Your task to perform on an android device: Search for a storage ottoman in the living room Image 0: 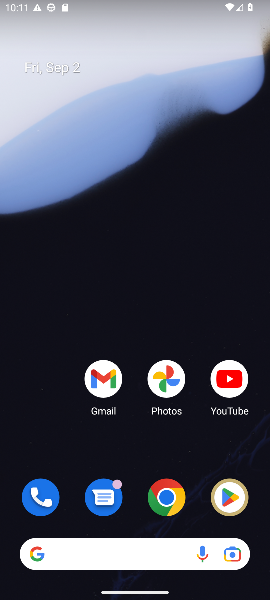
Step 0: click (178, 507)
Your task to perform on an android device: Search for a storage ottoman in the living room Image 1: 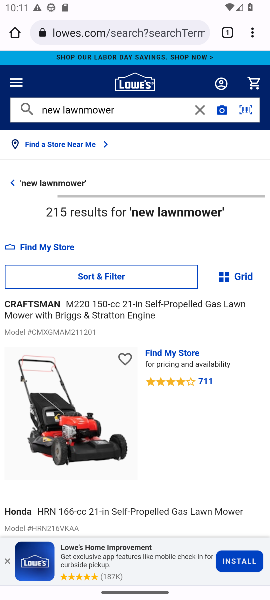
Step 1: click (134, 31)
Your task to perform on an android device: Search for a storage ottoman in the living room Image 2: 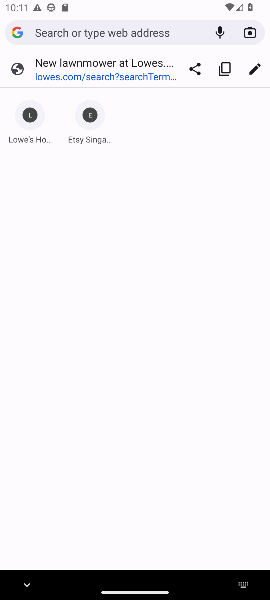
Step 2: type "storage ottoman in the living room"
Your task to perform on an android device: Search for a storage ottoman in the living room Image 3: 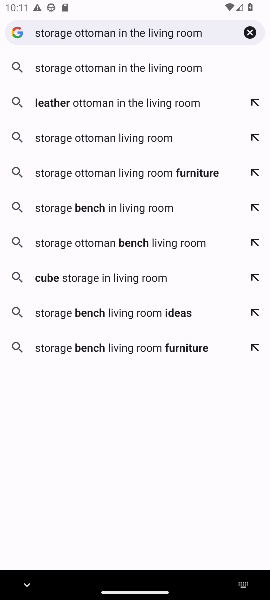
Step 3: click (159, 69)
Your task to perform on an android device: Search for a storage ottoman in the living room Image 4: 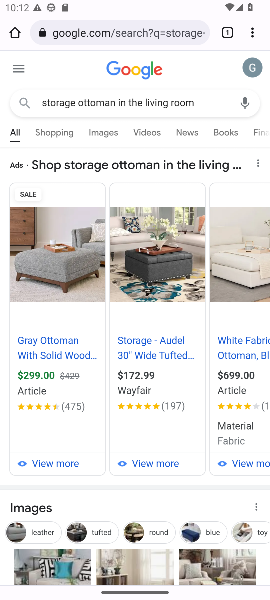
Step 4: task complete